Your task to perform on an android device: Open CNN.com Image 0: 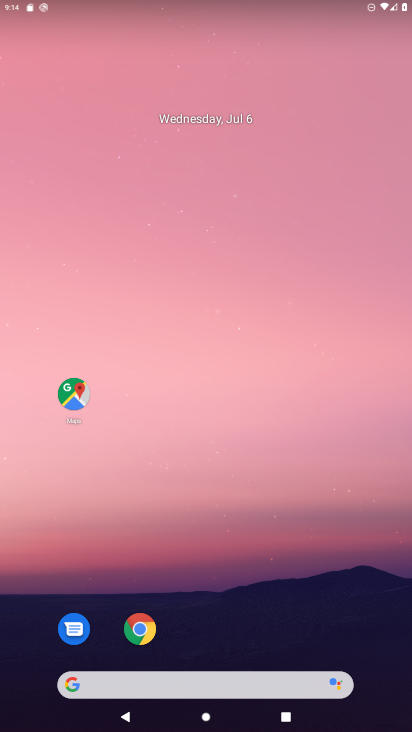
Step 0: drag from (309, 633) to (304, 57)
Your task to perform on an android device: Open CNN.com Image 1: 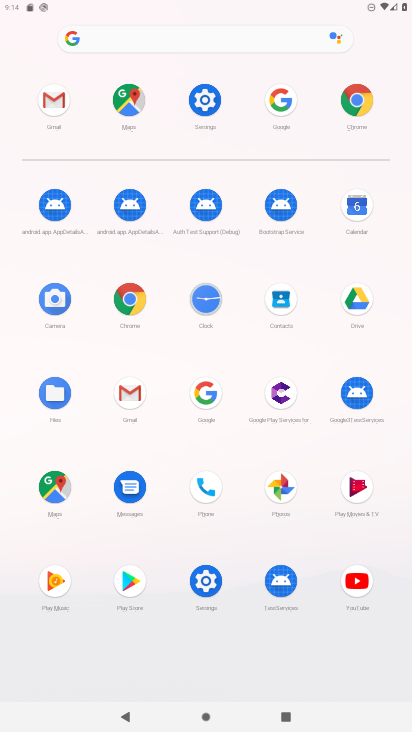
Step 1: click (137, 307)
Your task to perform on an android device: Open CNN.com Image 2: 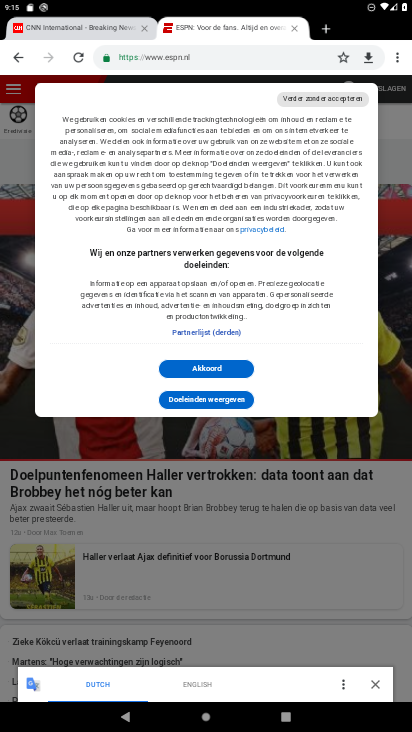
Step 2: click (238, 57)
Your task to perform on an android device: Open CNN.com Image 3: 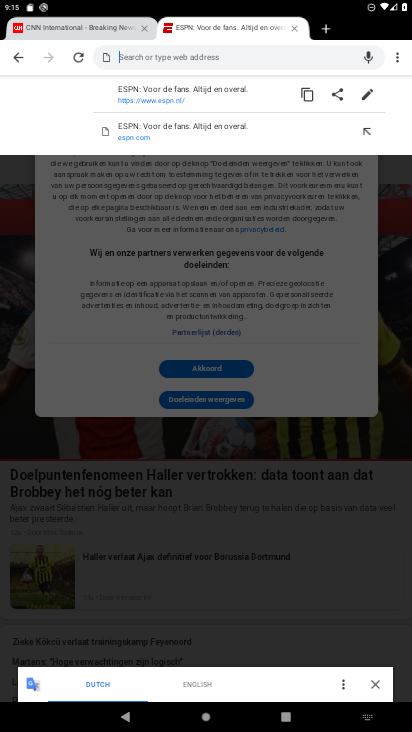
Step 3: type "cnn.com"
Your task to perform on an android device: Open CNN.com Image 4: 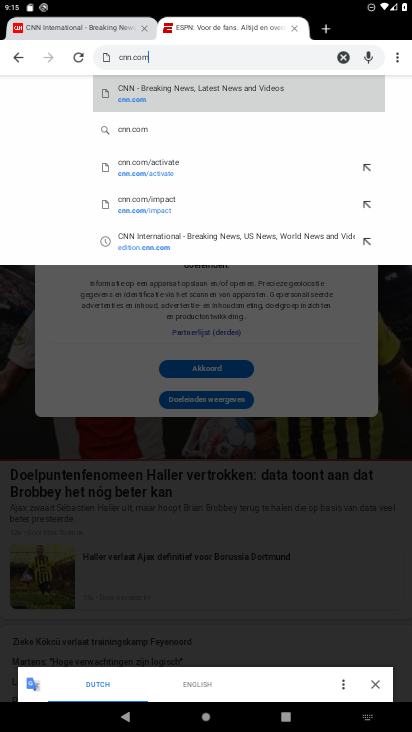
Step 4: click (161, 103)
Your task to perform on an android device: Open CNN.com Image 5: 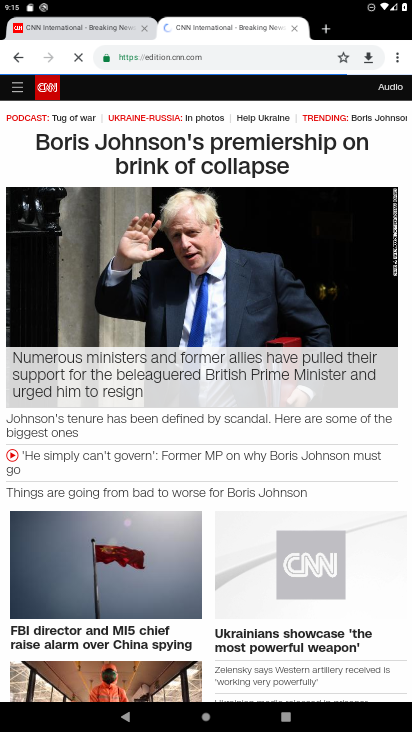
Step 5: task complete